Your task to perform on an android device: Open the map Image 0: 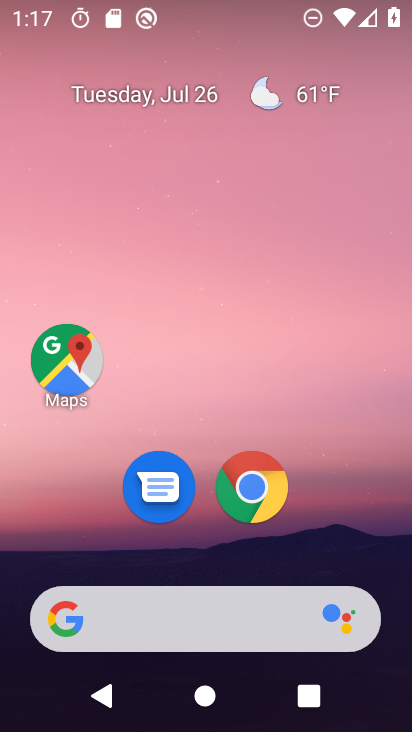
Step 0: click (79, 352)
Your task to perform on an android device: Open the map Image 1: 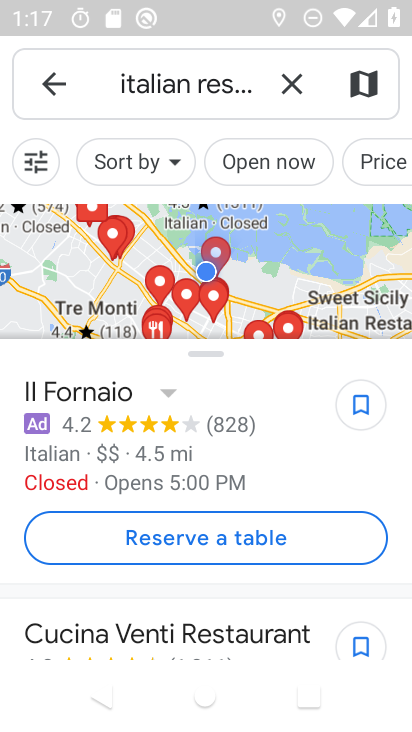
Step 1: task complete